Your task to perform on an android device: open device folders in google photos Image 0: 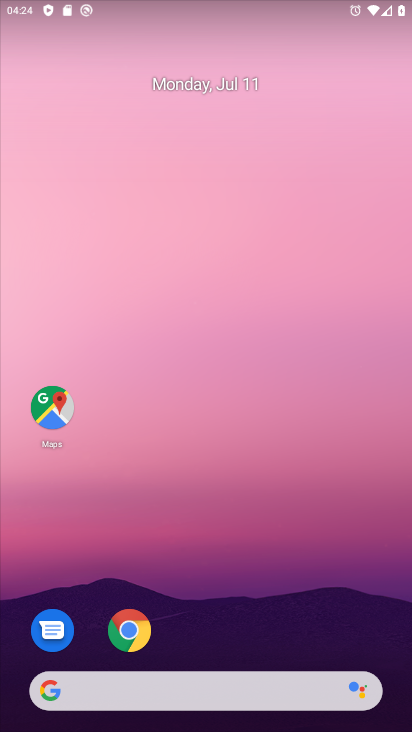
Step 0: press home button
Your task to perform on an android device: open device folders in google photos Image 1: 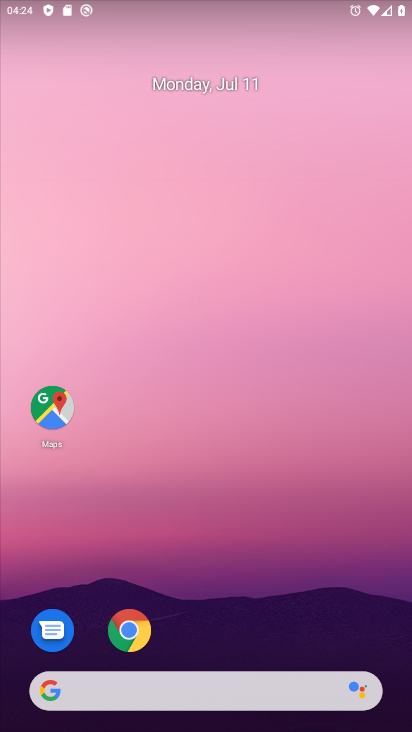
Step 1: drag from (232, 655) to (221, 17)
Your task to perform on an android device: open device folders in google photos Image 2: 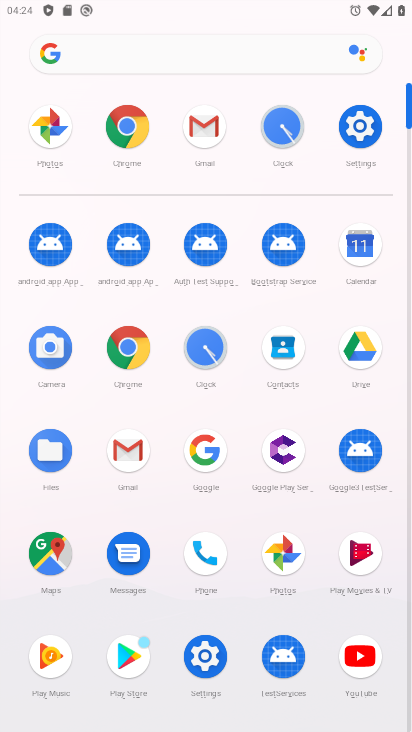
Step 2: click (284, 547)
Your task to perform on an android device: open device folders in google photos Image 3: 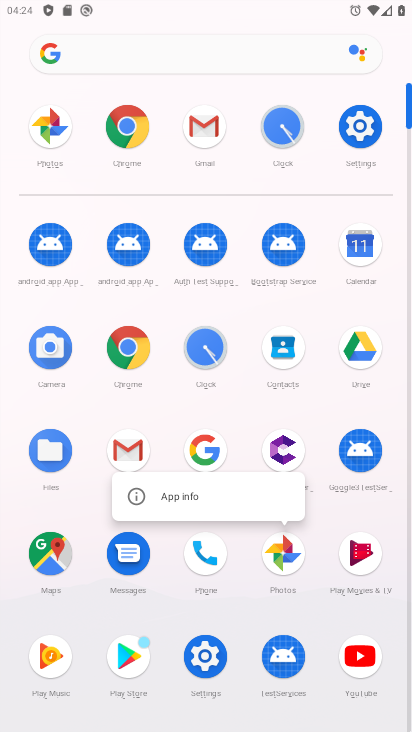
Step 3: click (280, 550)
Your task to perform on an android device: open device folders in google photos Image 4: 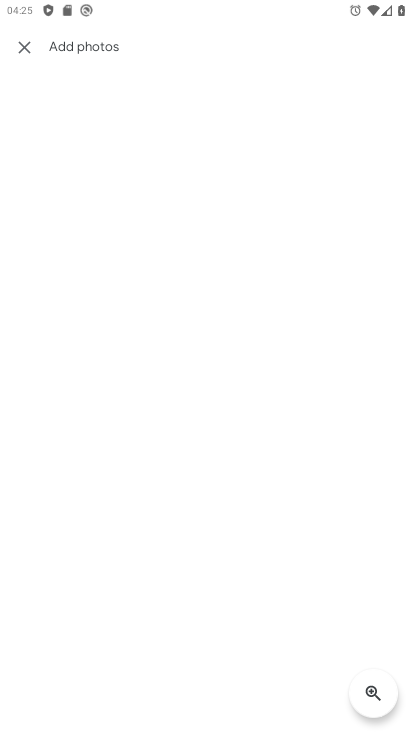
Step 4: click (24, 45)
Your task to perform on an android device: open device folders in google photos Image 5: 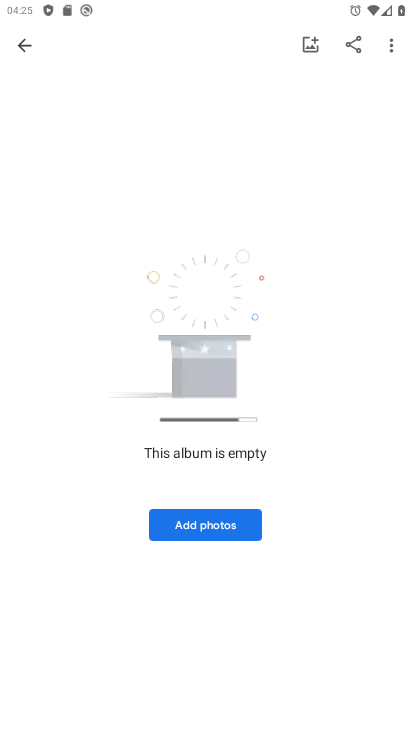
Step 5: click (24, 46)
Your task to perform on an android device: open device folders in google photos Image 6: 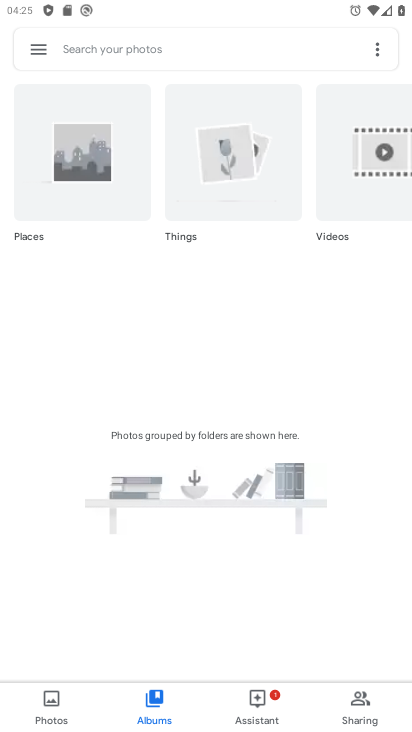
Step 6: click (41, 43)
Your task to perform on an android device: open device folders in google photos Image 7: 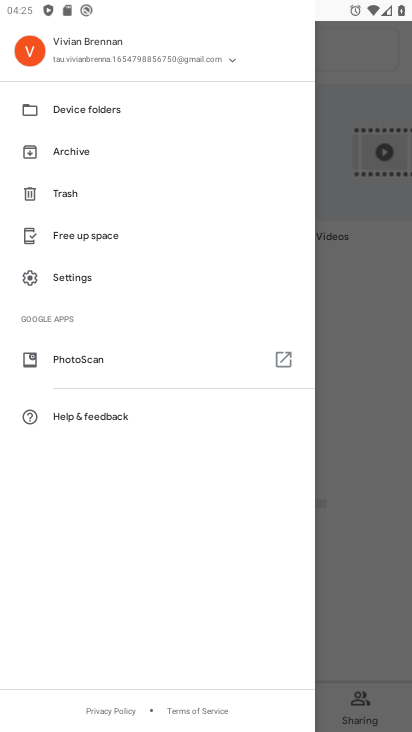
Step 7: click (128, 104)
Your task to perform on an android device: open device folders in google photos Image 8: 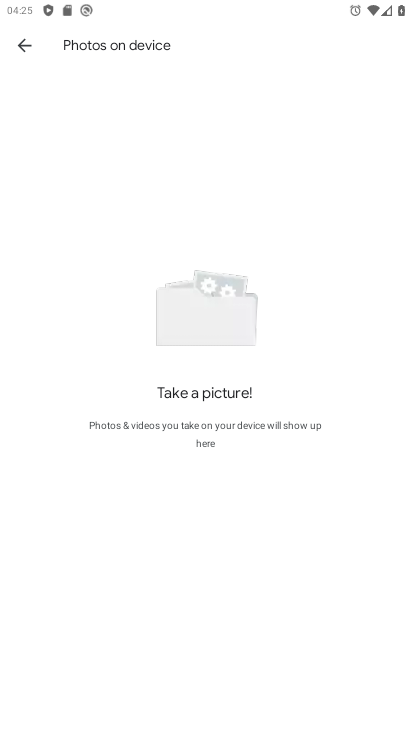
Step 8: task complete